Your task to perform on an android device: Open network settings Image 0: 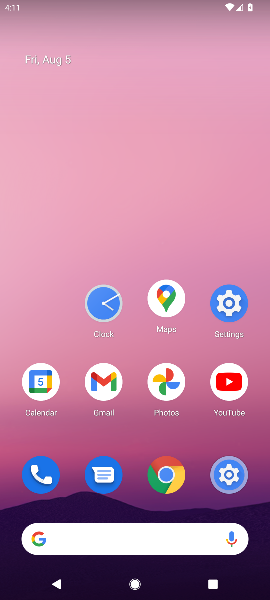
Step 0: click (224, 474)
Your task to perform on an android device: Open network settings Image 1: 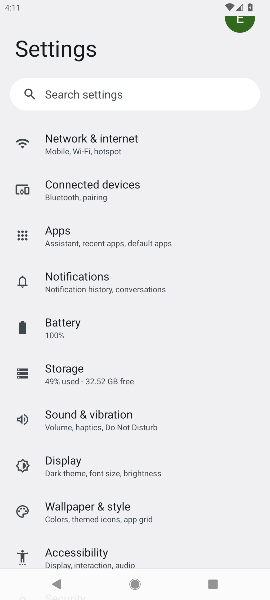
Step 1: click (120, 137)
Your task to perform on an android device: Open network settings Image 2: 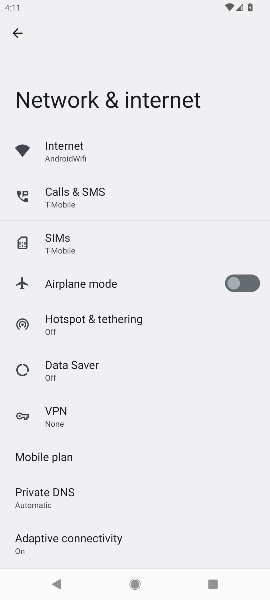
Step 2: task complete